Your task to perform on an android device: Show me popular videos on Youtube Image 0: 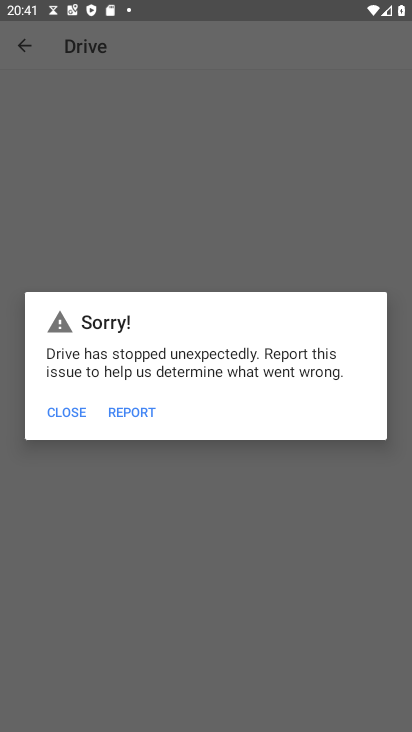
Step 0: press home button
Your task to perform on an android device: Show me popular videos on Youtube Image 1: 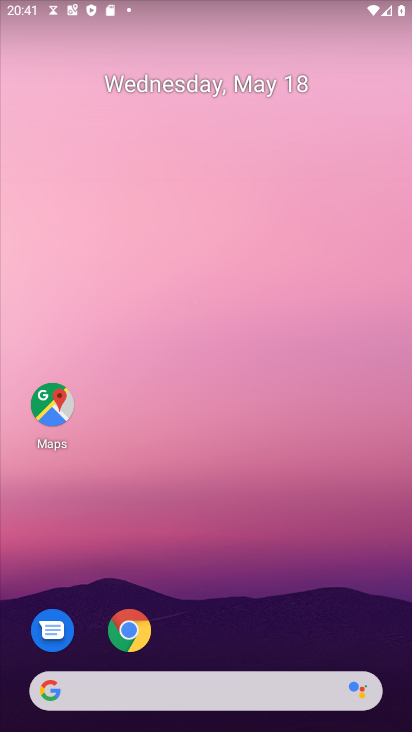
Step 1: drag from (148, 674) to (384, 64)
Your task to perform on an android device: Show me popular videos on Youtube Image 2: 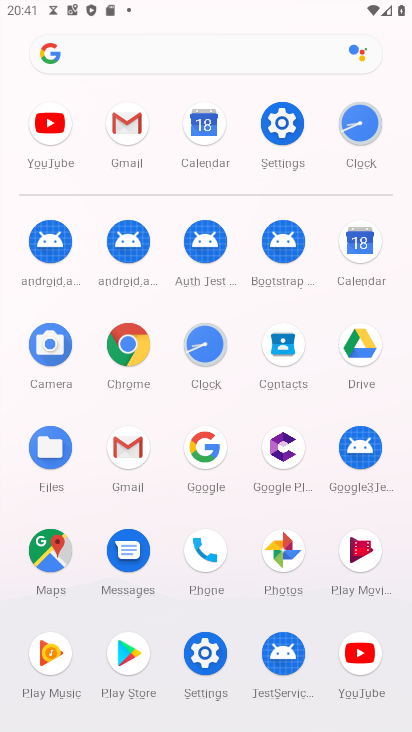
Step 2: click (360, 644)
Your task to perform on an android device: Show me popular videos on Youtube Image 3: 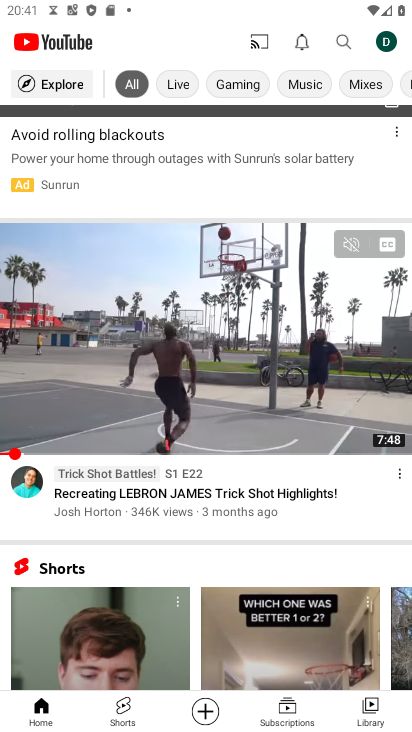
Step 3: task complete